Your task to perform on an android device: allow cookies in the chrome app Image 0: 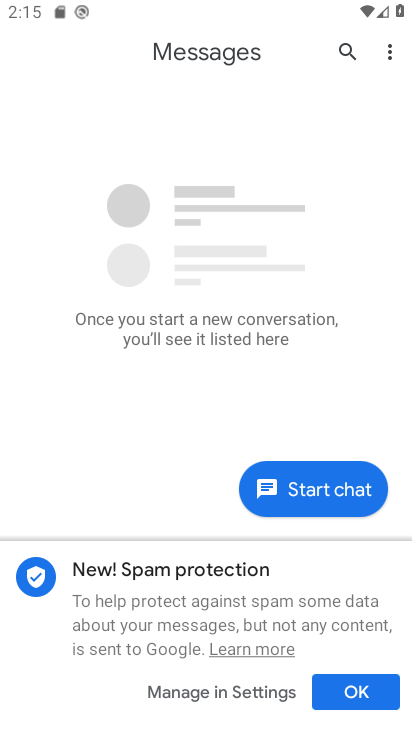
Step 0: press home button
Your task to perform on an android device: allow cookies in the chrome app Image 1: 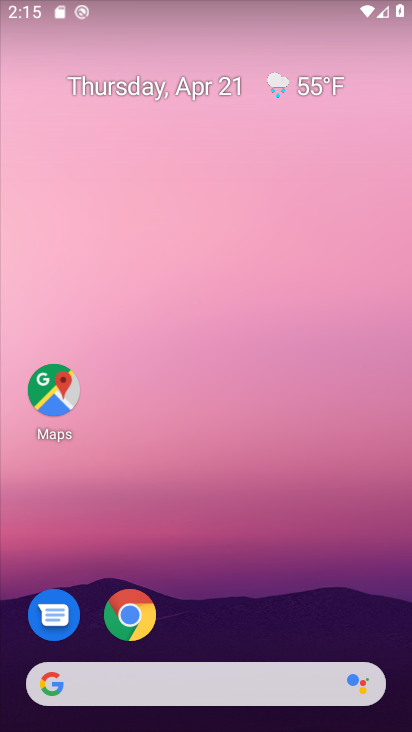
Step 1: click (135, 609)
Your task to perform on an android device: allow cookies in the chrome app Image 2: 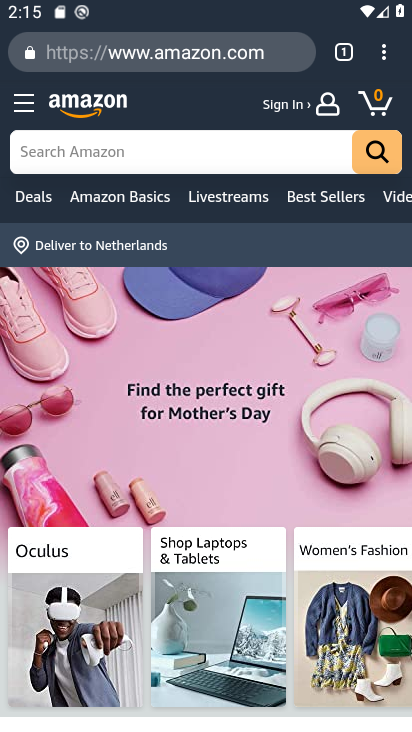
Step 2: click (387, 70)
Your task to perform on an android device: allow cookies in the chrome app Image 3: 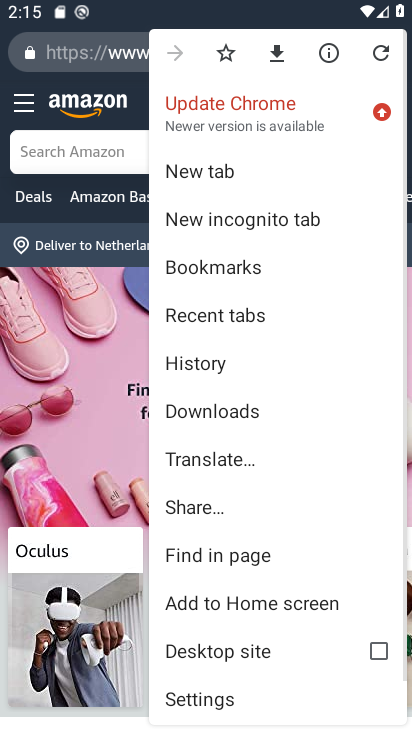
Step 3: drag from (210, 578) to (336, 69)
Your task to perform on an android device: allow cookies in the chrome app Image 4: 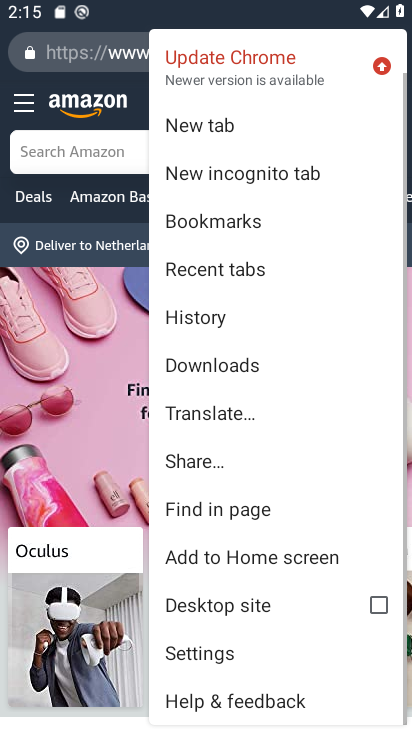
Step 4: click (333, 46)
Your task to perform on an android device: allow cookies in the chrome app Image 5: 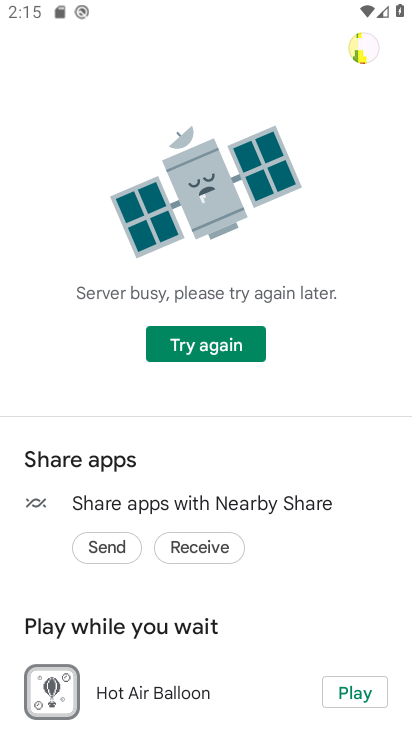
Step 5: press home button
Your task to perform on an android device: allow cookies in the chrome app Image 6: 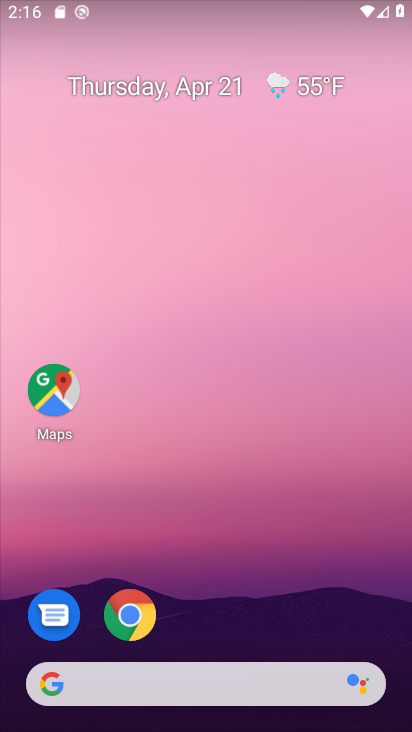
Step 6: click (140, 623)
Your task to perform on an android device: allow cookies in the chrome app Image 7: 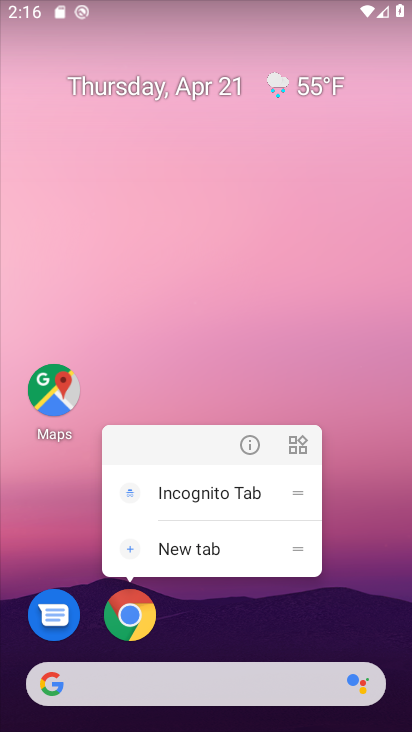
Step 7: click (130, 613)
Your task to perform on an android device: allow cookies in the chrome app Image 8: 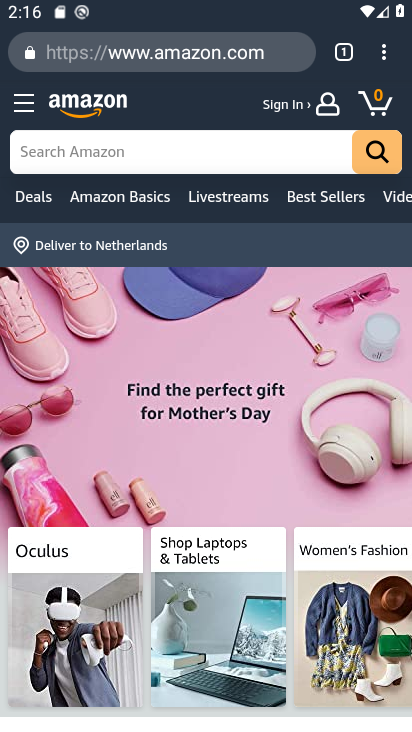
Step 8: click (389, 58)
Your task to perform on an android device: allow cookies in the chrome app Image 9: 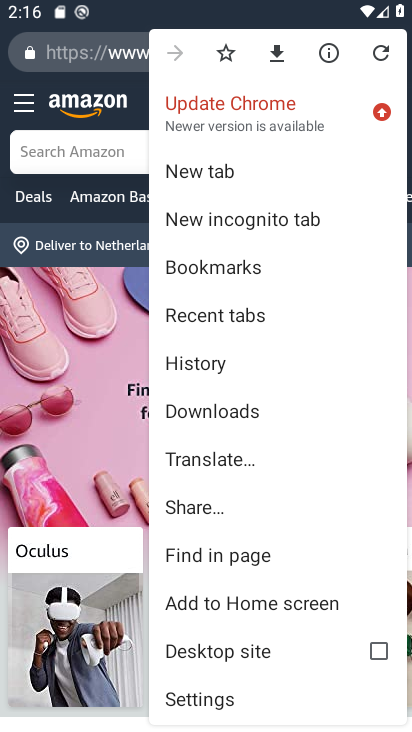
Step 9: drag from (243, 648) to (270, 467)
Your task to perform on an android device: allow cookies in the chrome app Image 10: 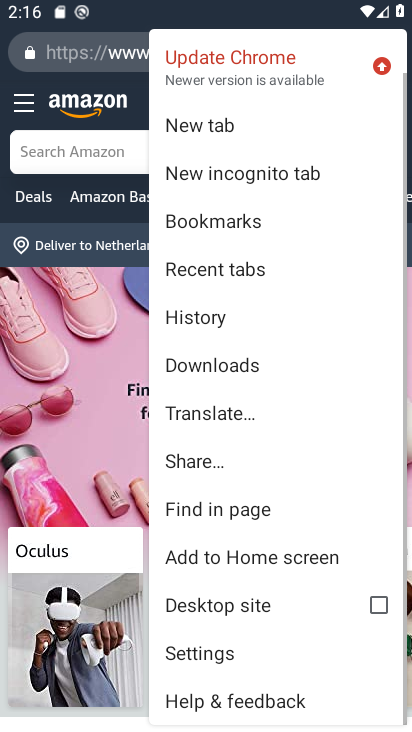
Step 10: click (215, 659)
Your task to perform on an android device: allow cookies in the chrome app Image 11: 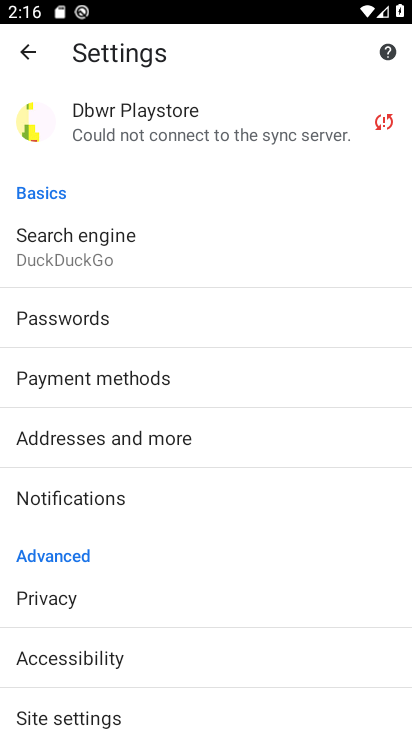
Step 11: click (75, 708)
Your task to perform on an android device: allow cookies in the chrome app Image 12: 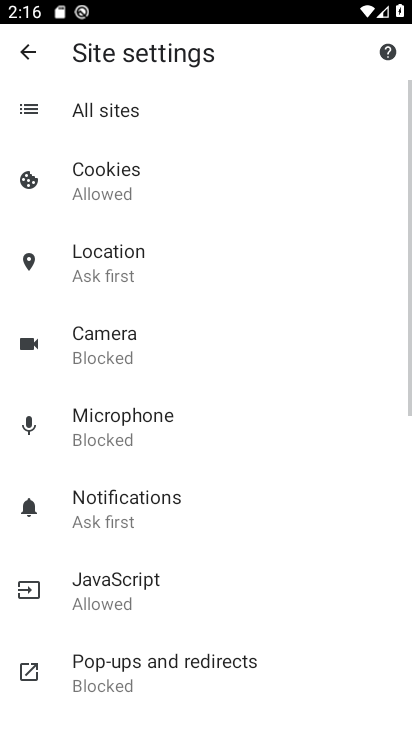
Step 12: click (129, 195)
Your task to perform on an android device: allow cookies in the chrome app Image 13: 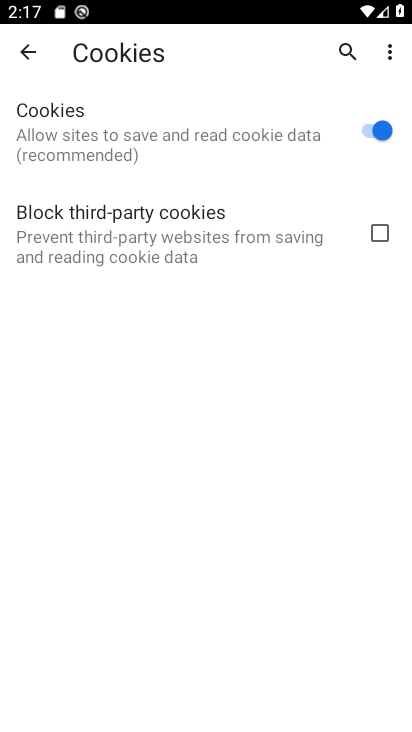
Step 13: task complete